Your task to perform on an android device: change notification settings in the gmail app Image 0: 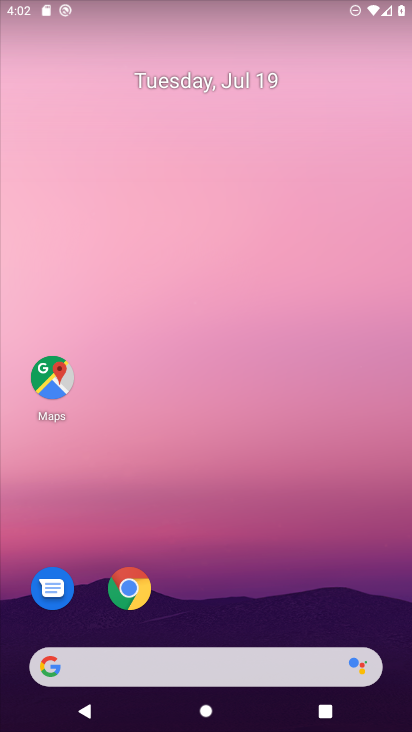
Step 0: press home button
Your task to perform on an android device: change notification settings in the gmail app Image 1: 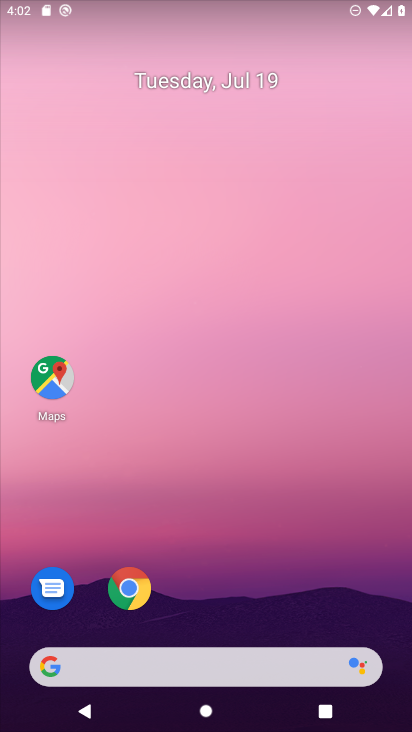
Step 1: drag from (166, 619) to (191, 416)
Your task to perform on an android device: change notification settings in the gmail app Image 2: 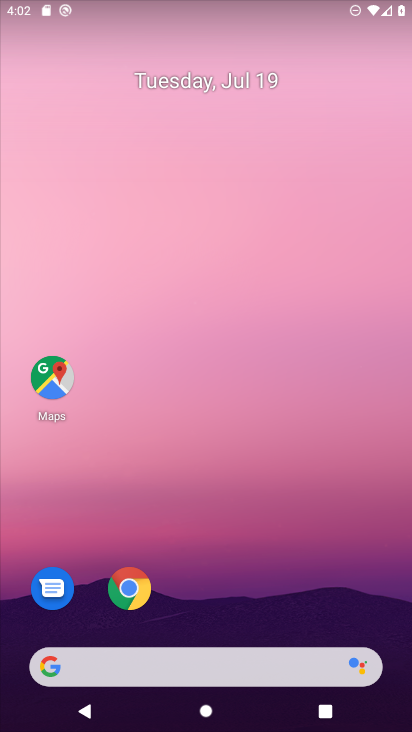
Step 2: drag from (202, 578) to (202, 203)
Your task to perform on an android device: change notification settings in the gmail app Image 3: 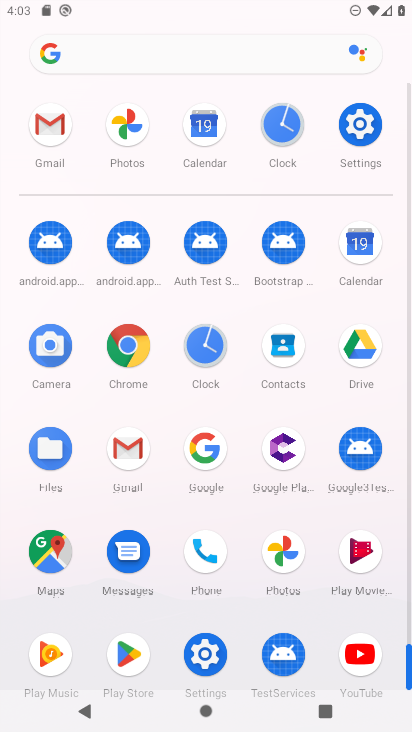
Step 3: click (120, 439)
Your task to perform on an android device: change notification settings in the gmail app Image 4: 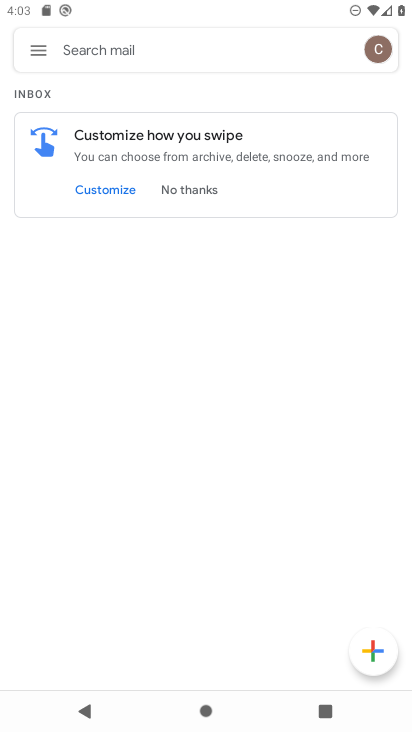
Step 4: click (30, 52)
Your task to perform on an android device: change notification settings in the gmail app Image 5: 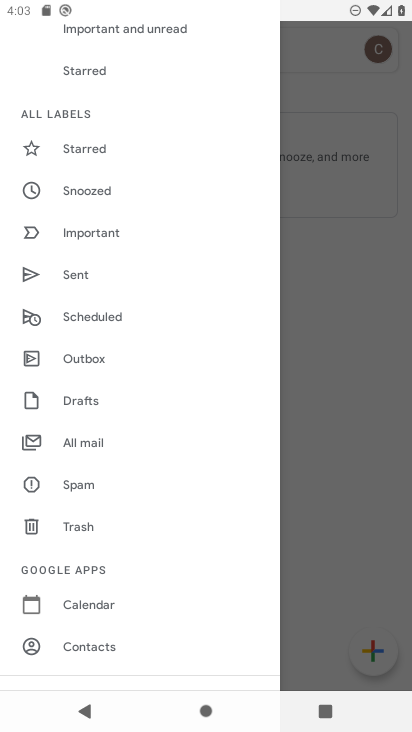
Step 5: drag from (93, 520) to (100, 336)
Your task to perform on an android device: change notification settings in the gmail app Image 6: 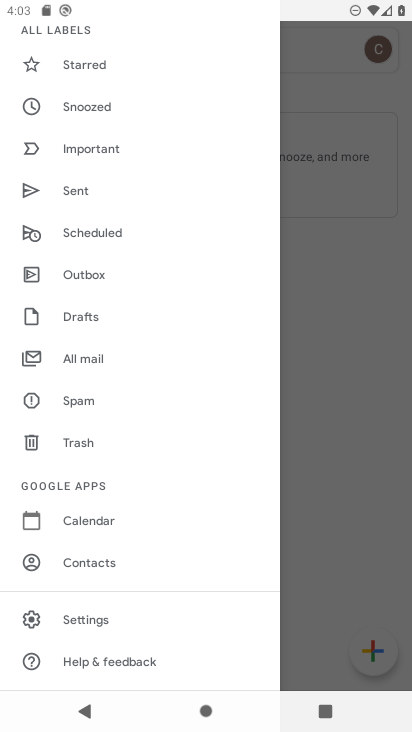
Step 6: click (89, 616)
Your task to perform on an android device: change notification settings in the gmail app Image 7: 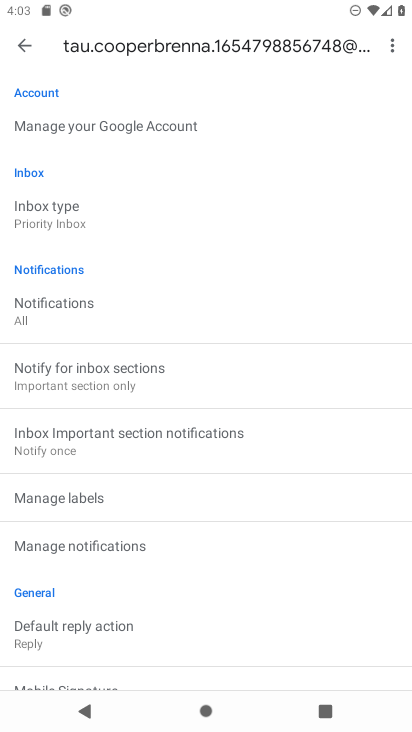
Step 7: click (94, 541)
Your task to perform on an android device: change notification settings in the gmail app Image 8: 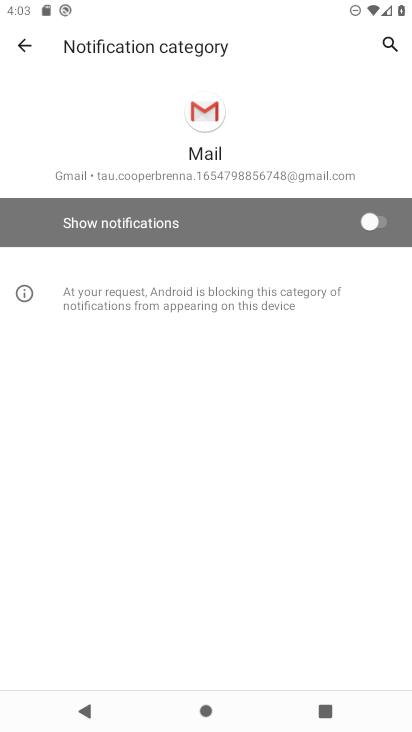
Step 8: click (378, 223)
Your task to perform on an android device: change notification settings in the gmail app Image 9: 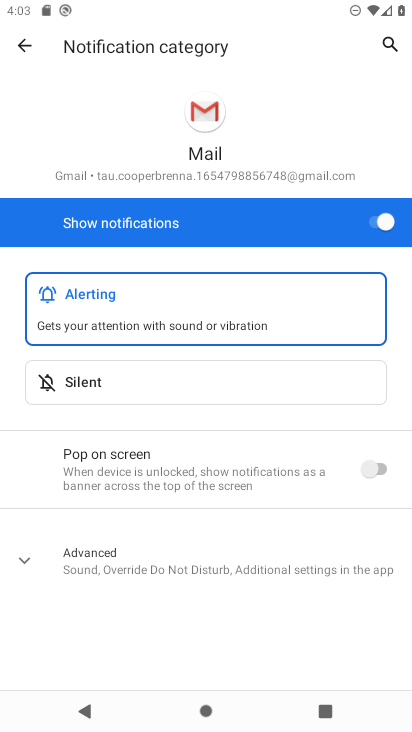
Step 9: task complete